Your task to perform on an android device: Go to accessibility settings Image 0: 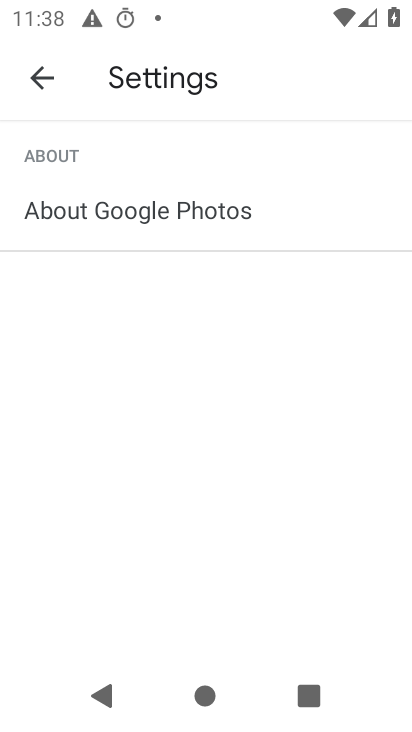
Step 0: press back button
Your task to perform on an android device: Go to accessibility settings Image 1: 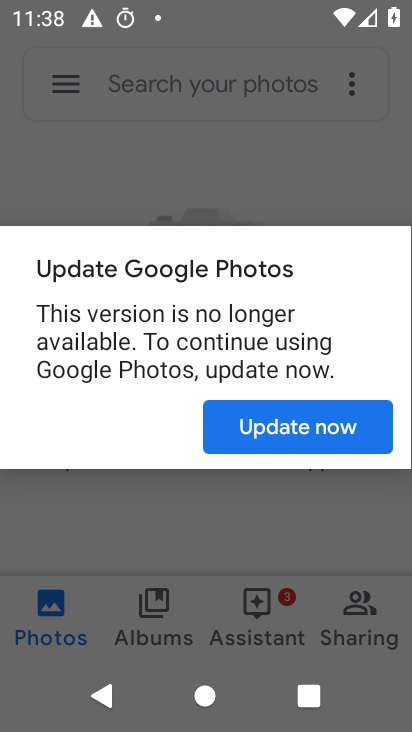
Step 1: press back button
Your task to perform on an android device: Go to accessibility settings Image 2: 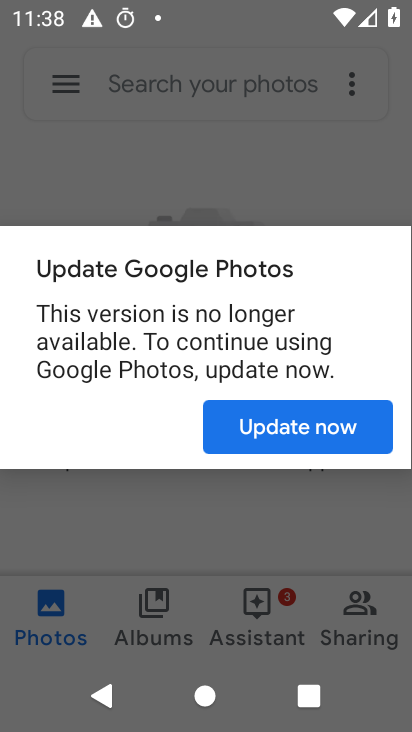
Step 2: press home button
Your task to perform on an android device: Go to accessibility settings Image 3: 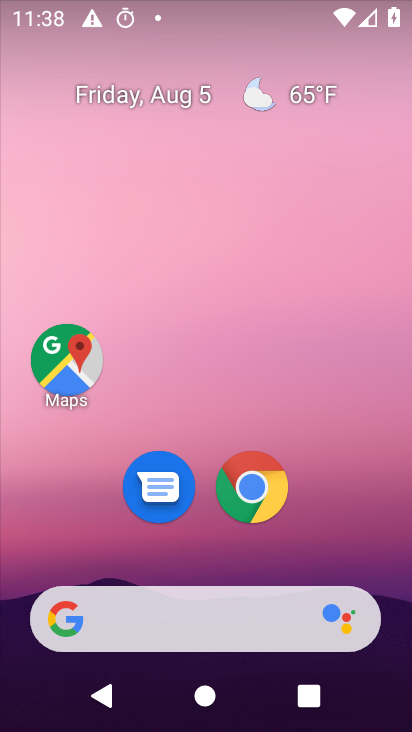
Step 3: drag from (146, 546) to (249, 4)
Your task to perform on an android device: Go to accessibility settings Image 4: 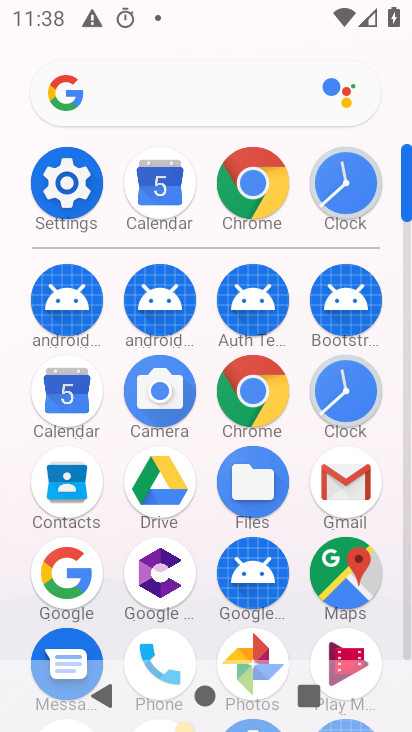
Step 4: click (70, 180)
Your task to perform on an android device: Go to accessibility settings Image 5: 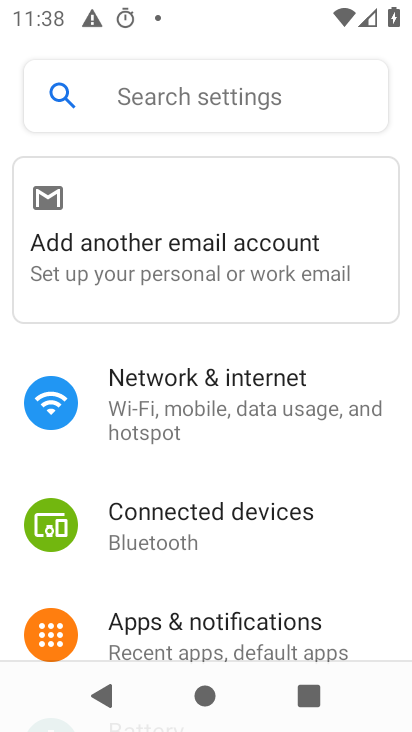
Step 5: drag from (185, 585) to (313, 63)
Your task to perform on an android device: Go to accessibility settings Image 6: 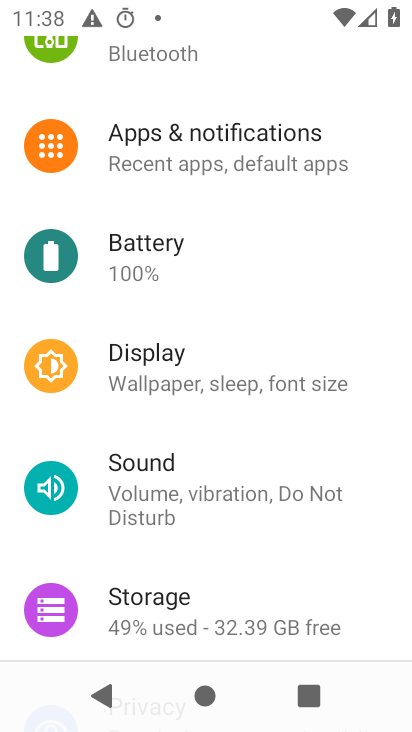
Step 6: drag from (178, 583) to (262, 68)
Your task to perform on an android device: Go to accessibility settings Image 7: 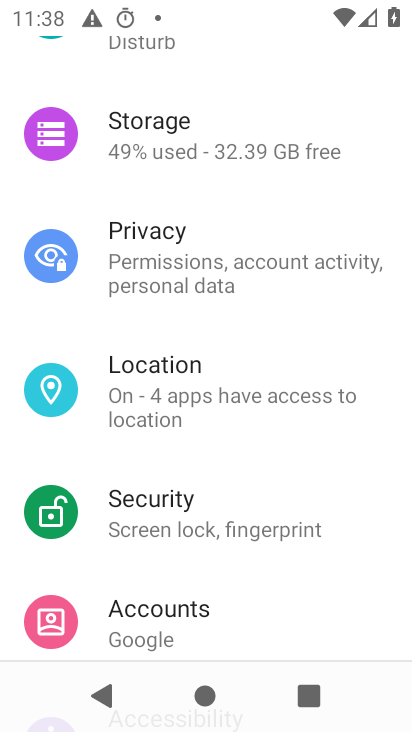
Step 7: drag from (172, 569) to (268, 12)
Your task to perform on an android device: Go to accessibility settings Image 8: 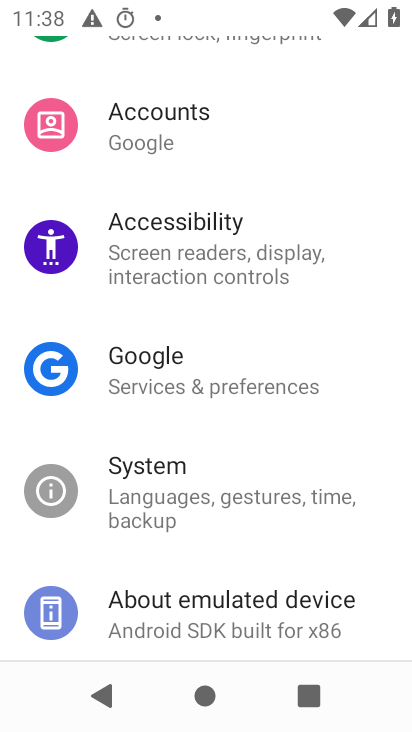
Step 8: click (182, 241)
Your task to perform on an android device: Go to accessibility settings Image 9: 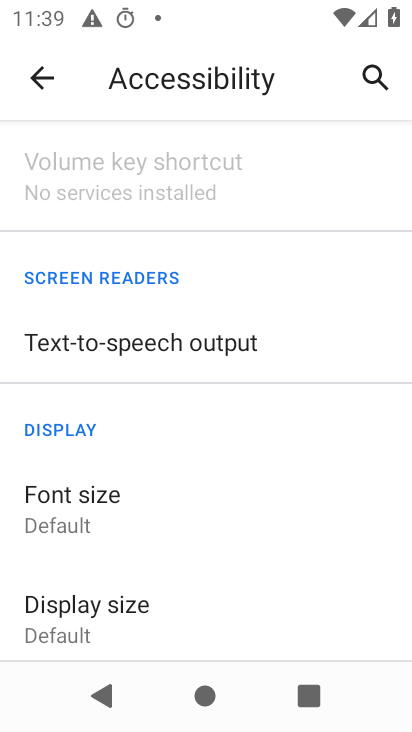
Step 9: task complete